Your task to perform on an android device: Go to Maps Image 0: 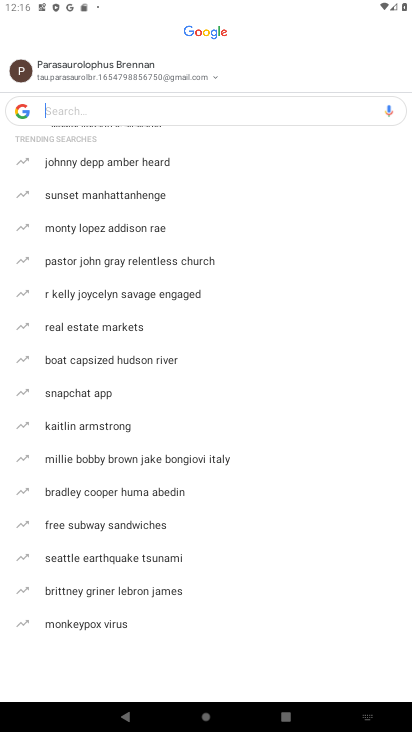
Step 0: press home button
Your task to perform on an android device: Go to Maps Image 1: 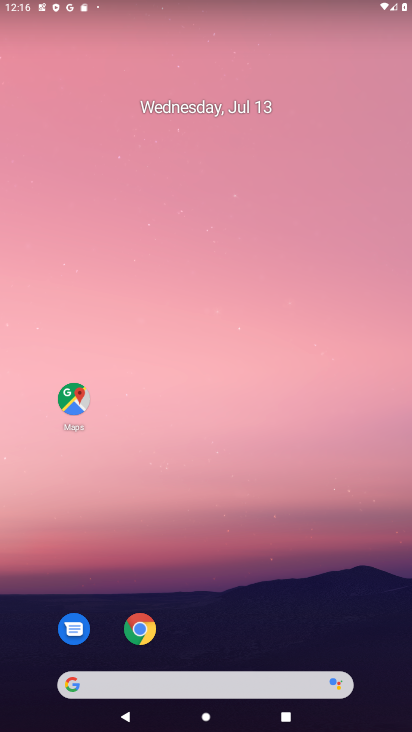
Step 1: drag from (281, 619) to (278, 258)
Your task to perform on an android device: Go to Maps Image 2: 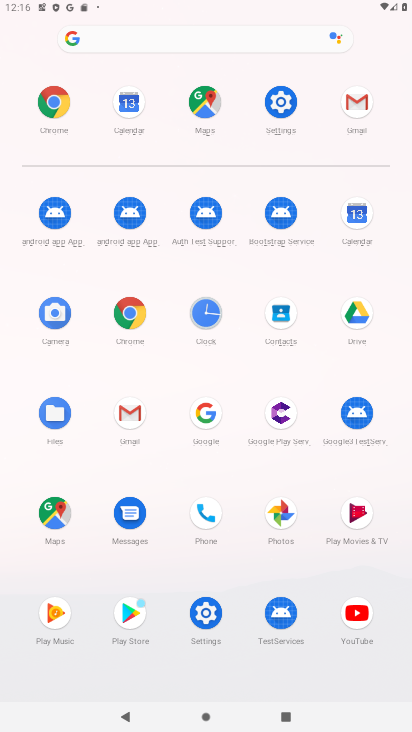
Step 2: click (48, 513)
Your task to perform on an android device: Go to Maps Image 3: 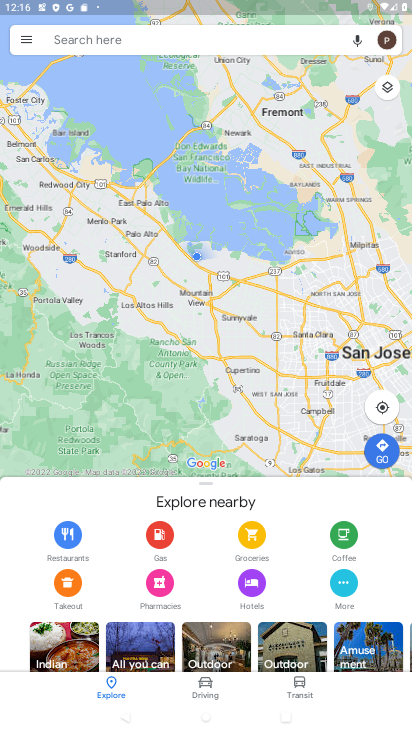
Step 3: task complete